Your task to perform on an android device: turn notification dots off Image 0: 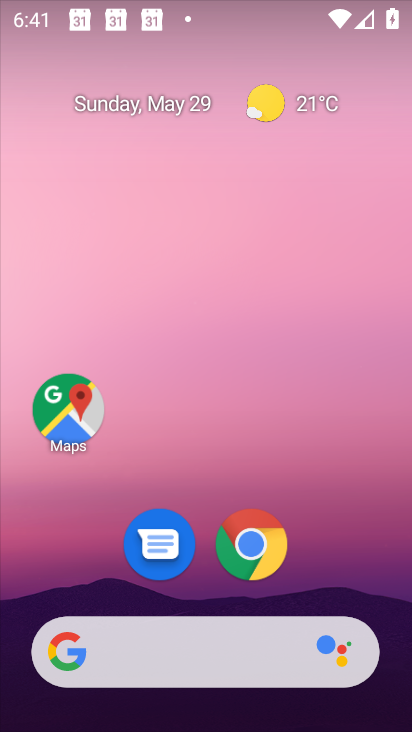
Step 0: drag from (339, 537) to (139, 50)
Your task to perform on an android device: turn notification dots off Image 1: 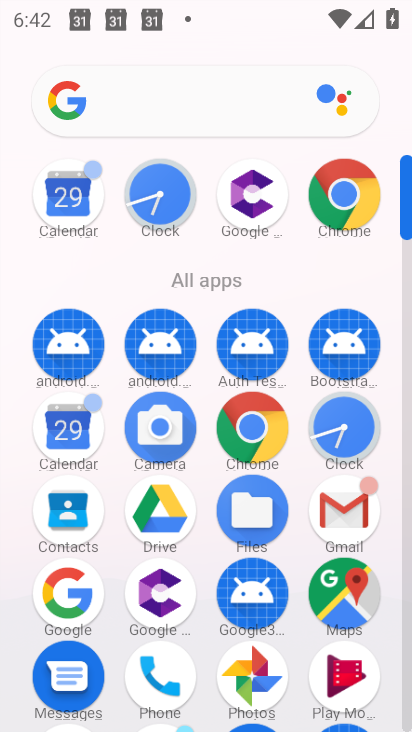
Step 1: drag from (206, 644) to (200, 178)
Your task to perform on an android device: turn notification dots off Image 2: 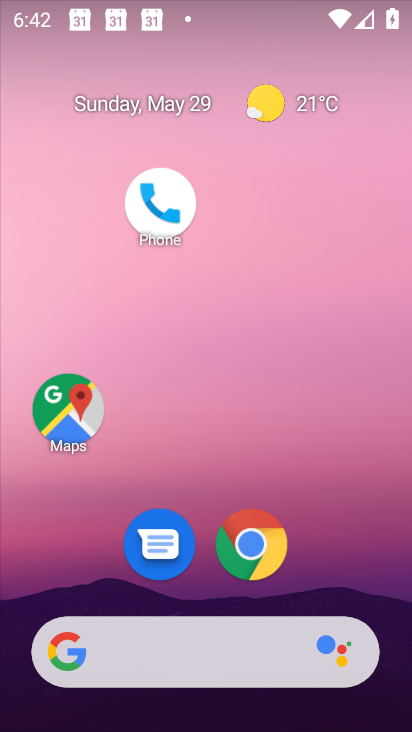
Step 2: drag from (344, 558) to (300, 37)
Your task to perform on an android device: turn notification dots off Image 3: 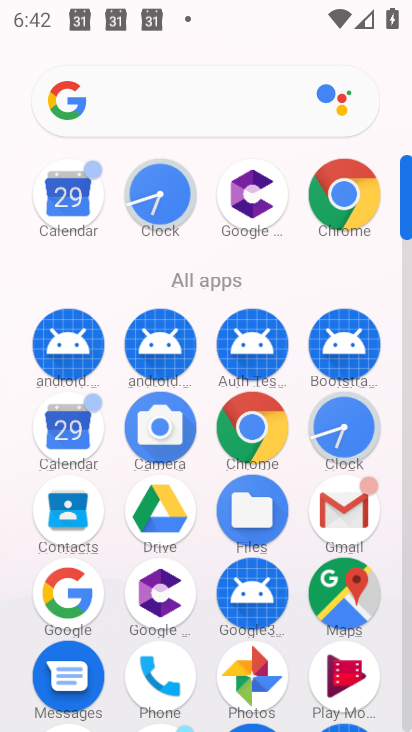
Step 3: drag from (201, 652) to (179, 231)
Your task to perform on an android device: turn notification dots off Image 4: 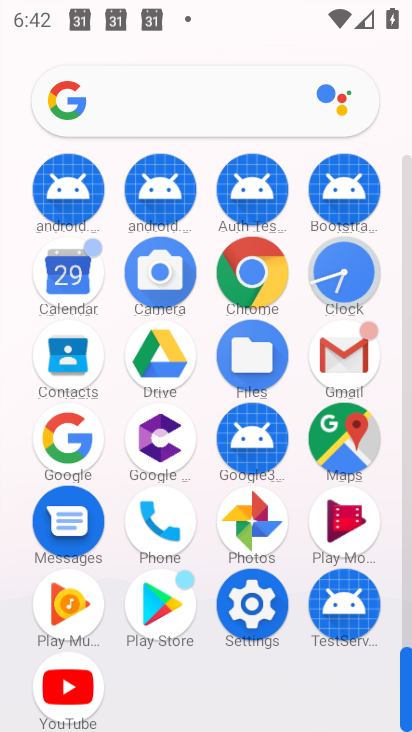
Step 4: click (251, 596)
Your task to perform on an android device: turn notification dots off Image 5: 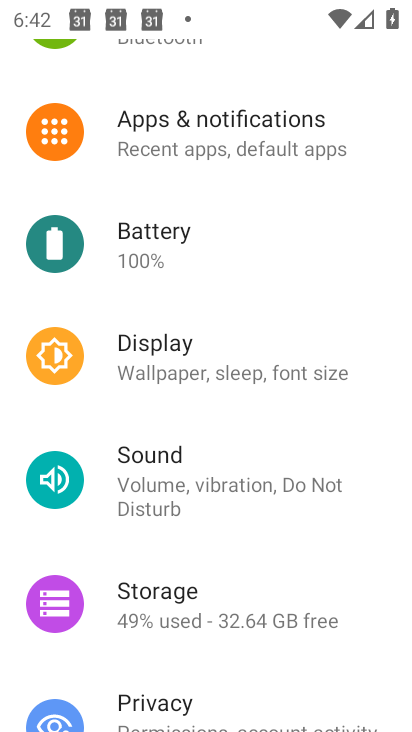
Step 5: click (233, 118)
Your task to perform on an android device: turn notification dots off Image 6: 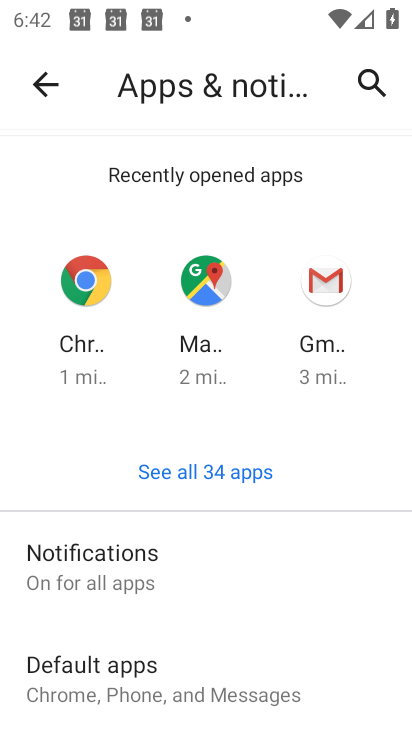
Step 6: click (97, 554)
Your task to perform on an android device: turn notification dots off Image 7: 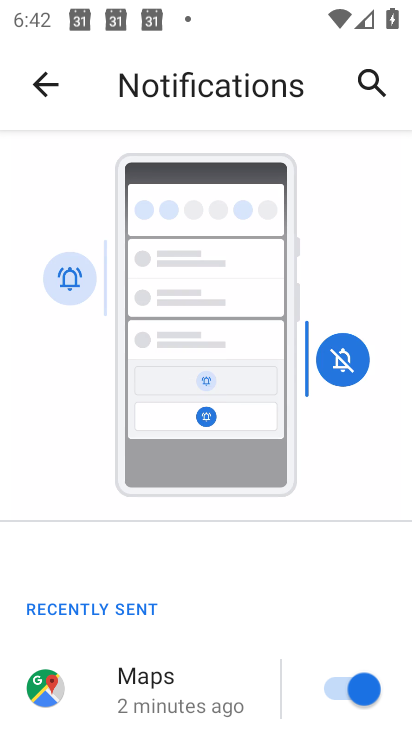
Step 7: drag from (316, 623) to (266, 14)
Your task to perform on an android device: turn notification dots off Image 8: 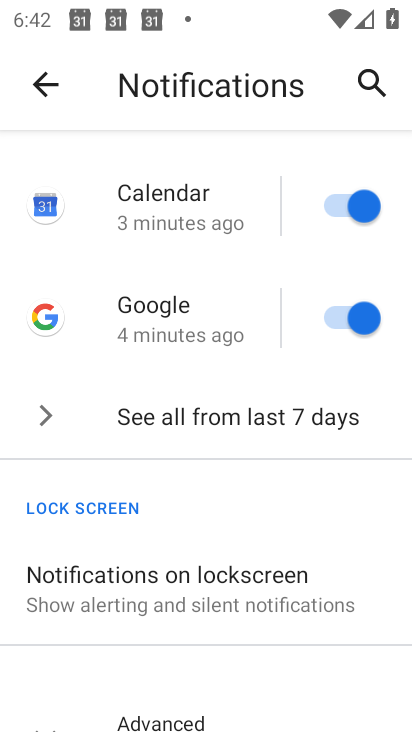
Step 8: drag from (215, 653) to (215, 350)
Your task to perform on an android device: turn notification dots off Image 9: 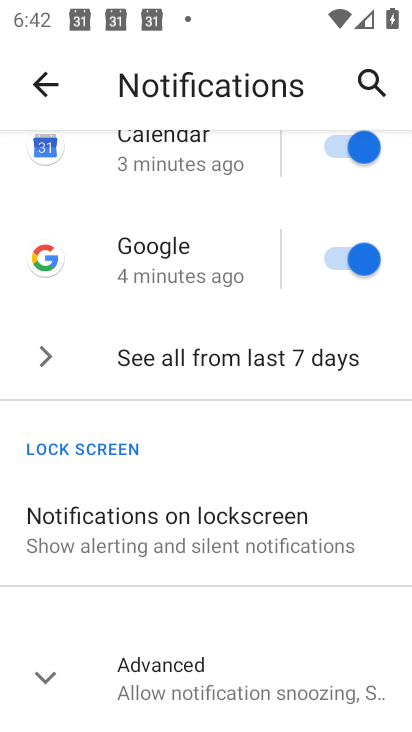
Step 9: click (46, 675)
Your task to perform on an android device: turn notification dots off Image 10: 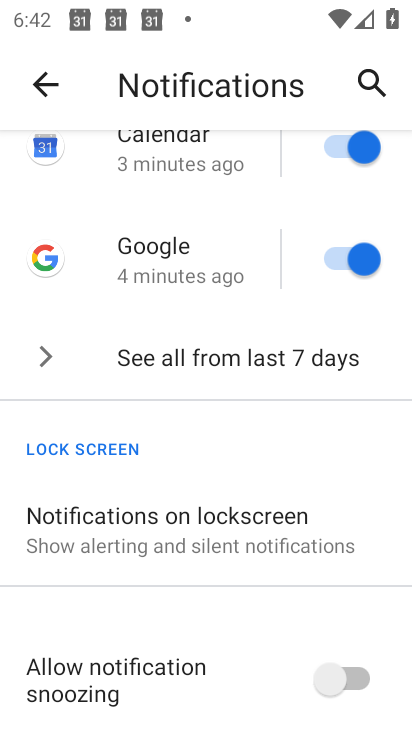
Step 10: drag from (222, 617) to (232, 328)
Your task to perform on an android device: turn notification dots off Image 11: 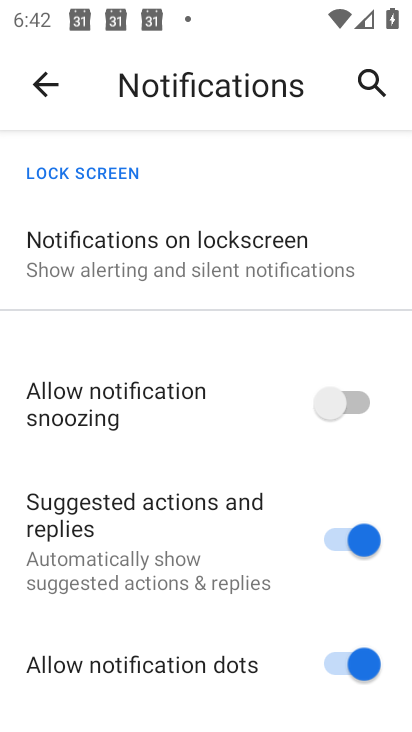
Step 11: click (359, 656)
Your task to perform on an android device: turn notification dots off Image 12: 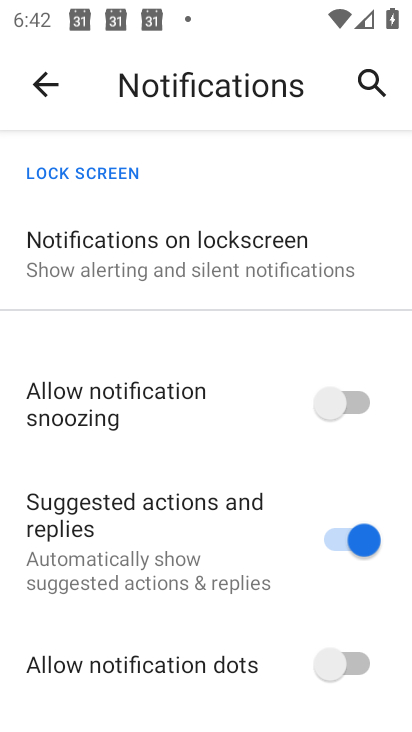
Step 12: task complete